Your task to perform on an android device: open device folders in google photos Image 0: 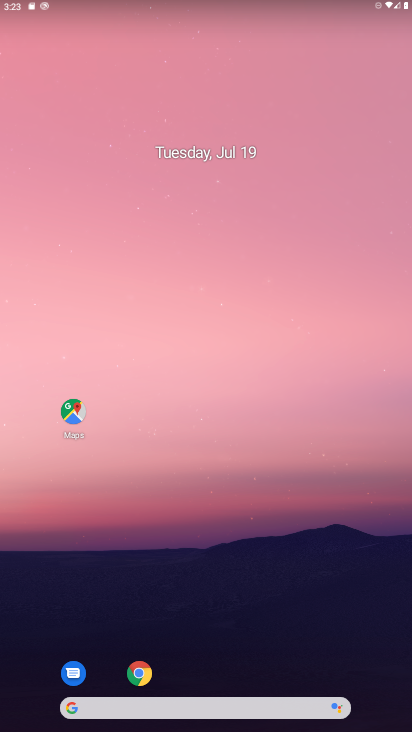
Step 0: drag from (166, 524) to (238, 2)
Your task to perform on an android device: open device folders in google photos Image 1: 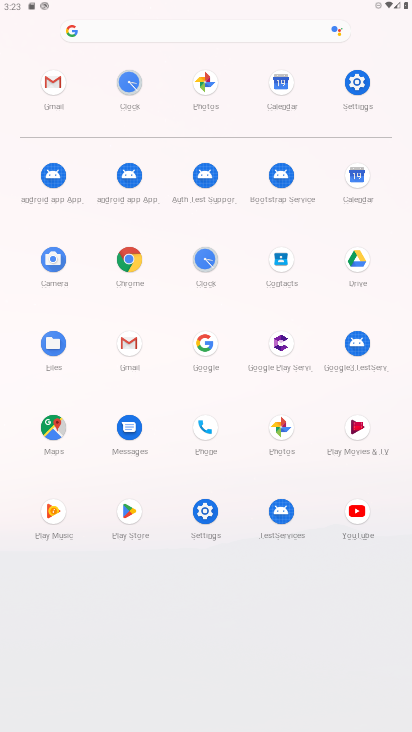
Step 1: click (289, 433)
Your task to perform on an android device: open device folders in google photos Image 2: 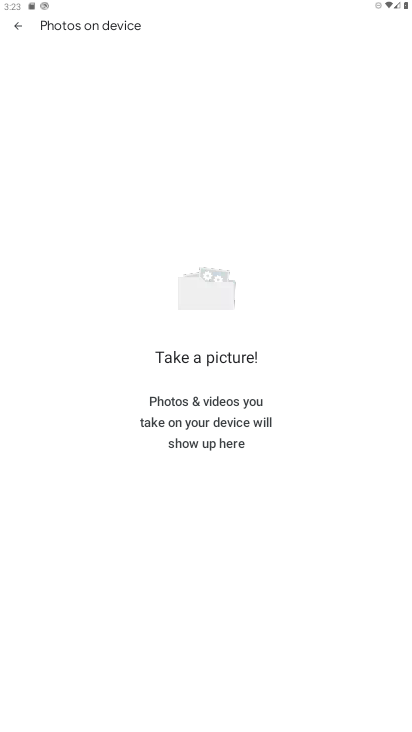
Step 2: click (25, 25)
Your task to perform on an android device: open device folders in google photos Image 3: 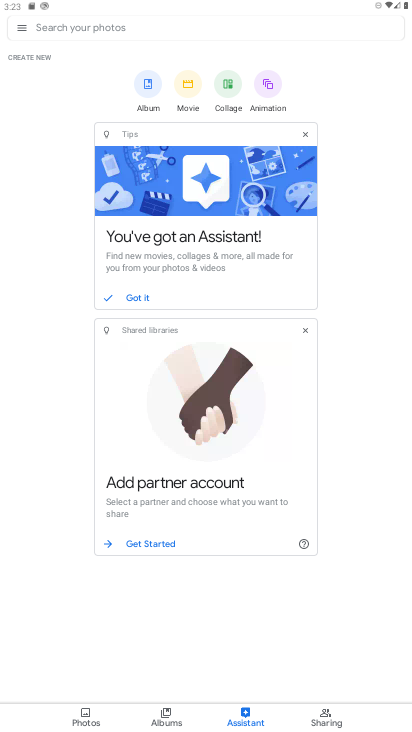
Step 3: click (16, 26)
Your task to perform on an android device: open device folders in google photos Image 4: 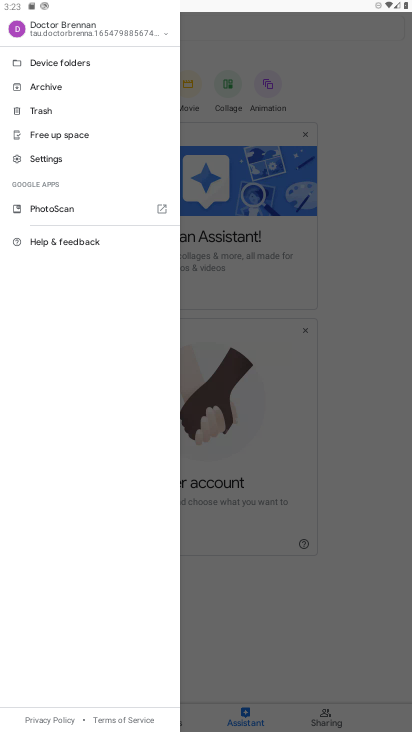
Step 4: click (68, 62)
Your task to perform on an android device: open device folders in google photos Image 5: 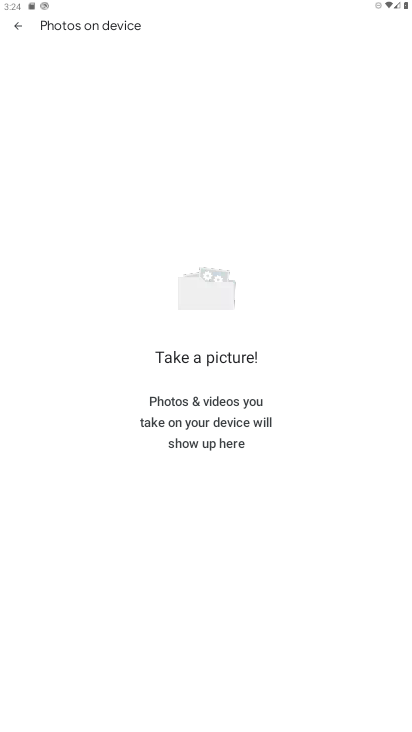
Step 5: task complete